Your task to perform on an android device: Open the calendar and show me this week's events? Image 0: 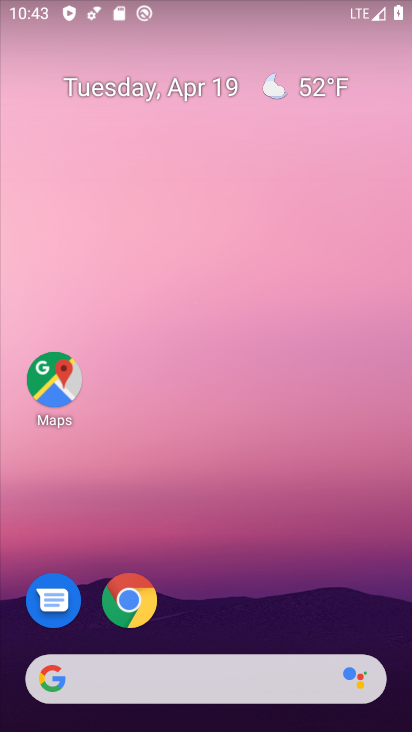
Step 0: drag from (220, 637) to (201, 25)
Your task to perform on an android device: Open the calendar and show me this week's events? Image 1: 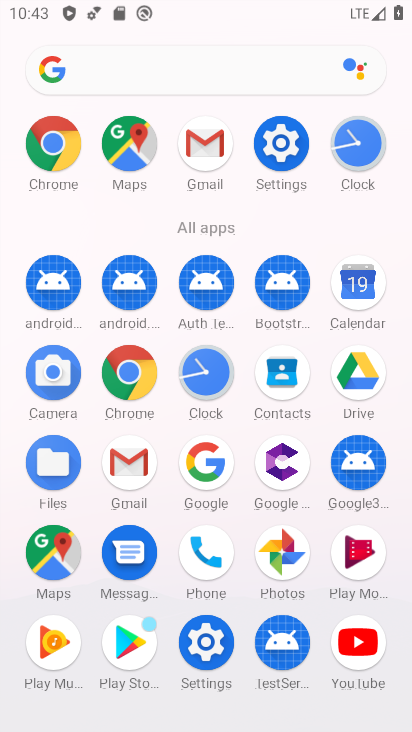
Step 1: click (355, 299)
Your task to perform on an android device: Open the calendar and show me this week's events? Image 2: 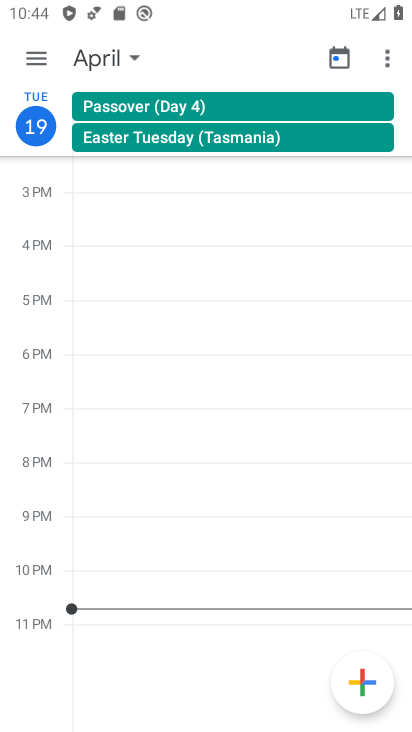
Step 2: click (24, 48)
Your task to perform on an android device: Open the calendar and show me this week's events? Image 3: 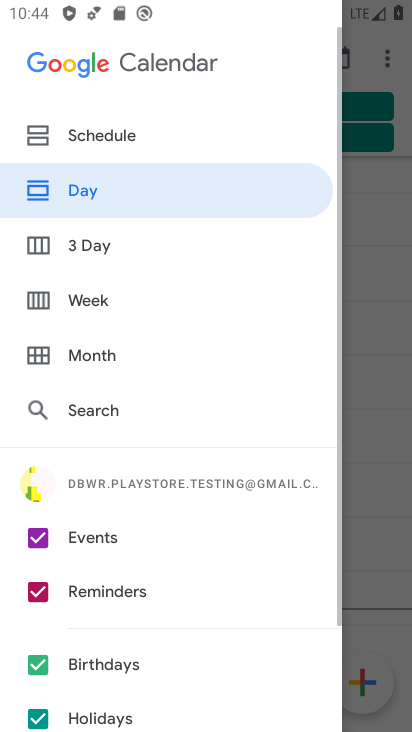
Step 3: click (109, 290)
Your task to perform on an android device: Open the calendar and show me this week's events? Image 4: 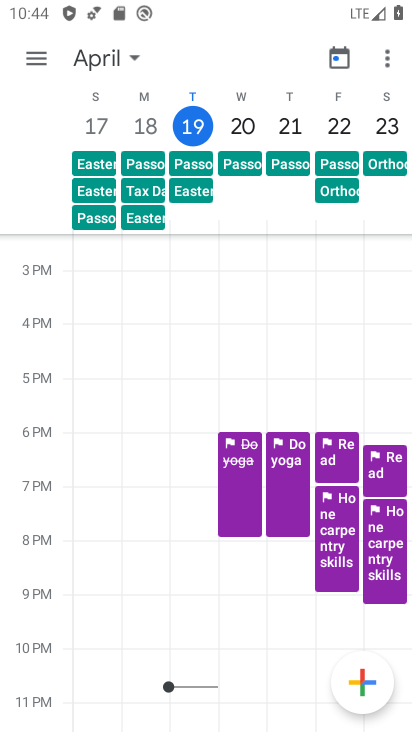
Step 4: task complete